Your task to perform on an android device: Clear the shopping cart on newegg. Add "logitech g pro" to the cart on newegg, then select checkout. Image 0: 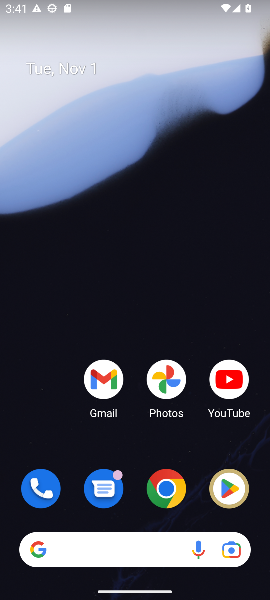
Step 0: drag from (140, 363) to (146, 29)
Your task to perform on an android device: Clear the shopping cart on newegg. Add "logitech g pro" to the cart on newegg, then select checkout. Image 1: 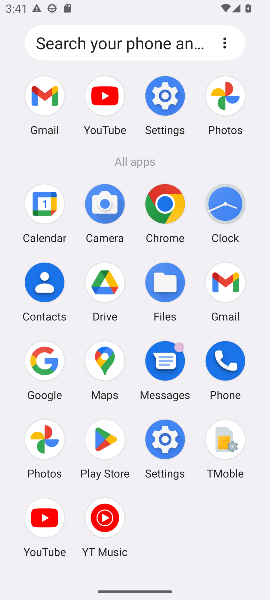
Step 1: click (164, 201)
Your task to perform on an android device: Clear the shopping cart on newegg. Add "logitech g pro" to the cart on newegg, then select checkout. Image 2: 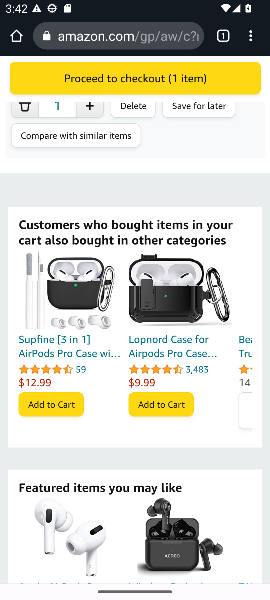
Step 2: click (84, 30)
Your task to perform on an android device: Clear the shopping cart on newegg. Add "logitech g pro" to the cart on newegg, then select checkout. Image 3: 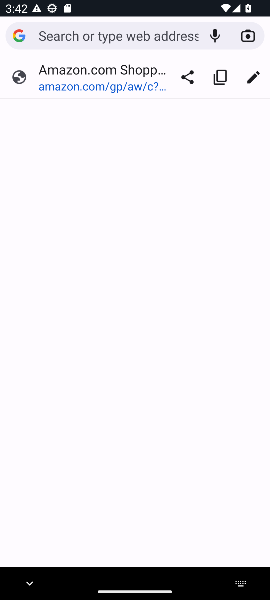
Step 3: type "newegg"
Your task to perform on an android device: Clear the shopping cart on newegg. Add "logitech g pro" to the cart on newegg, then select checkout. Image 4: 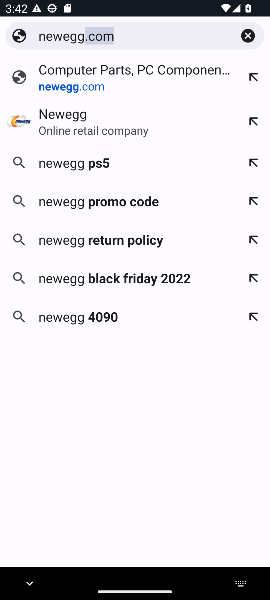
Step 4: click (66, 94)
Your task to perform on an android device: Clear the shopping cart on newegg. Add "logitech g pro" to the cart on newegg, then select checkout. Image 5: 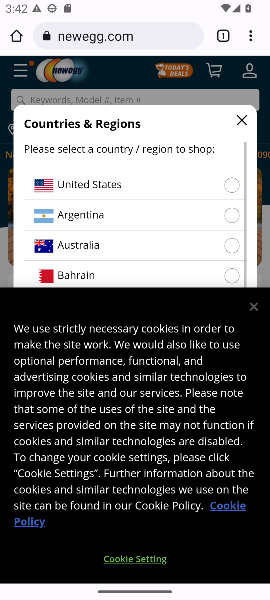
Step 5: click (255, 312)
Your task to perform on an android device: Clear the shopping cart on newegg. Add "logitech g pro" to the cart on newegg, then select checkout. Image 6: 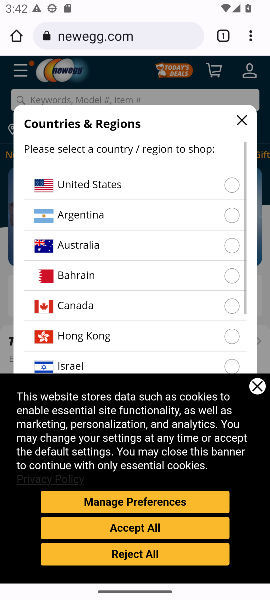
Step 6: click (257, 382)
Your task to perform on an android device: Clear the shopping cart on newegg. Add "logitech g pro" to the cart on newegg, then select checkout. Image 7: 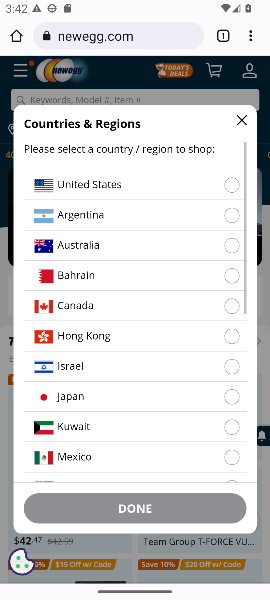
Step 7: click (231, 186)
Your task to perform on an android device: Clear the shopping cart on newegg. Add "logitech g pro" to the cart on newegg, then select checkout. Image 8: 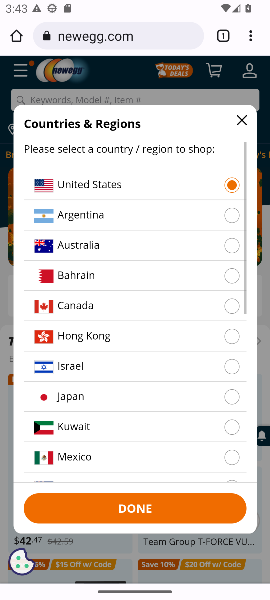
Step 8: click (135, 513)
Your task to perform on an android device: Clear the shopping cart on newegg. Add "logitech g pro" to the cart on newegg, then select checkout. Image 9: 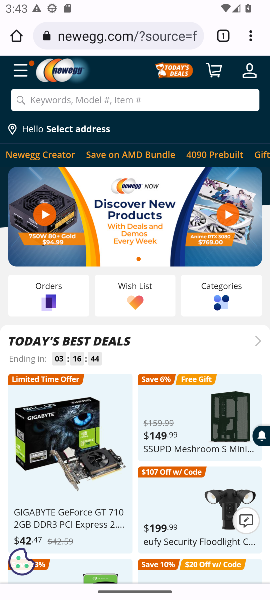
Step 9: click (56, 94)
Your task to perform on an android device: Clear the shopping cart on newegg. Add "logitech g pro" to the cart on newegg, then select checkout. Image 10: 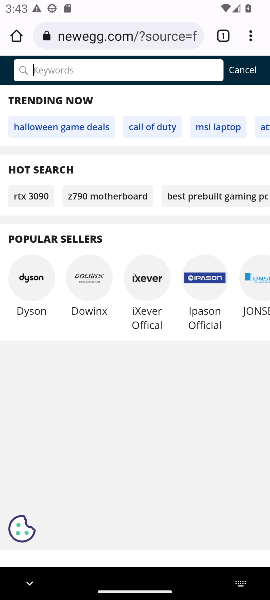
Step 10: type "logitech g pro"
Your task to perform on an android device: Clear the shopping cart on newegg. Add "logitech g pro" to the cart on newegg, then select checkout. Image 11: 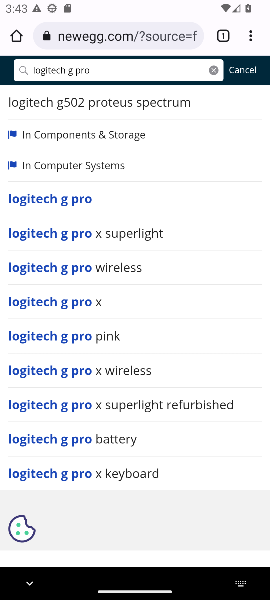
Step 11: click (20, 200)
Your task to perform on an android device: Clear the shopping cart on newegg. Add "logitech g pro" to the cart on newegg, then select checkout. Image 12: 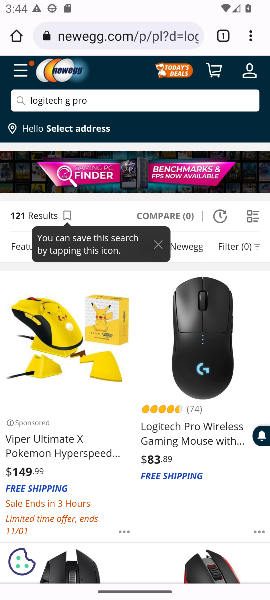
Step 12: click (203, 357)
Your task to perform on an android device: Clear the shopping cart on newegg. Add "logitech g pro" to the cart on newegg, then select checkout. Image 13: 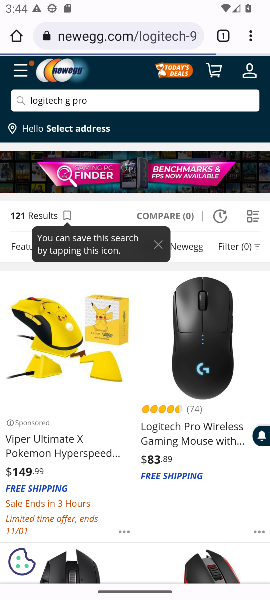
Step 13: click (183, 333)
Your task to perform on an android device: Clear the shopping cart on newegg. Add "logitech g pro" to the cart on newegg, then select checkout. Image 14: 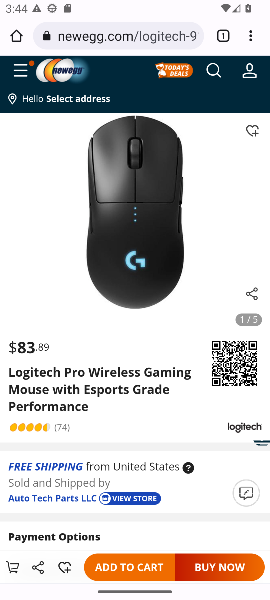
Step 14: drag from (194, 534) to (130, 125)
Your task to perform on an android device: Clear the shopping cart on newegg. Add "logitech g pro" to the cart on newegg, then select checkout. Image 15: 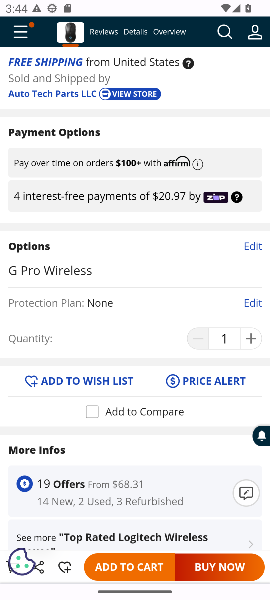
Step 15: drag from (135, 461) to (144, 38)
Your task to perform on an android device: Clear the shopping cart on newegg. Add "logitech g pro" to the cart on newegg, then select checkout. Image 16: 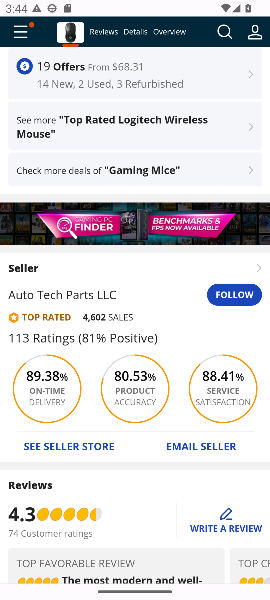
Step 16: click (126, 566)
Your task to perform on an android device: Clear the shopping cart on newegg. Add "logitech g pro" to the cart on newegg, then select checkout. Image 17: 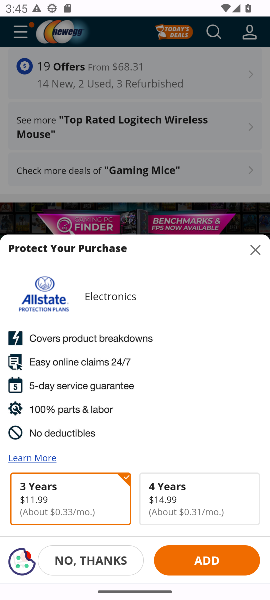
Step 17: click (260, 247)
Your task to perform on an android device: Clear the shopping cart on newegg. Add "logitech g pro" to the cart on newegg, then select checkout. Image 18: 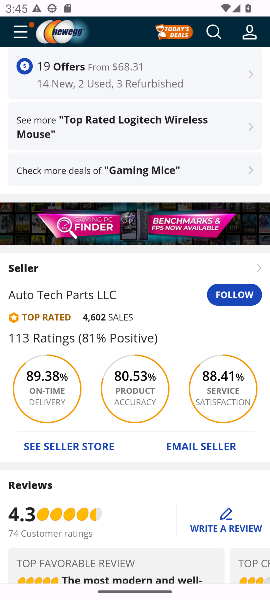
Step 18: drag from (118, 392) to (129, 520)
Your task to perform on an android device: Clear the shopping cart on newegg. Add "logitech g pro" to the cart on newegg, then select checkout. Image 19: 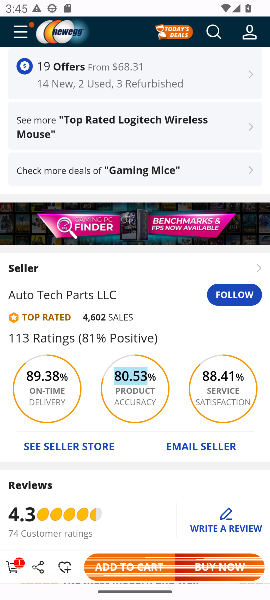
Step 19: drag from (149, 94) to (174, 394)
Your task to perform on an android device: Clear the shopping cart on newegg. Add "logitech g pro" to the cart on newegg, then select checkout. Image 20: 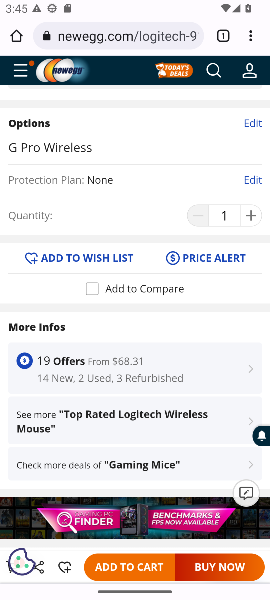
Step 20: click (7, 574)
Your task to perform on an android device: Clear the shopping cart on newegg. Add "logitech g pro" to the cart on newegg, then select checkout. Image 21: 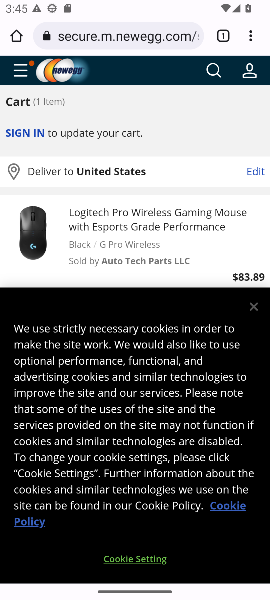
Step 21: click (254, 310)
Your task to perform on an android device: Clear the shopping cart on newegg. Add "logitech g pro" to the cart on newegg, then select checkout. Image 22: 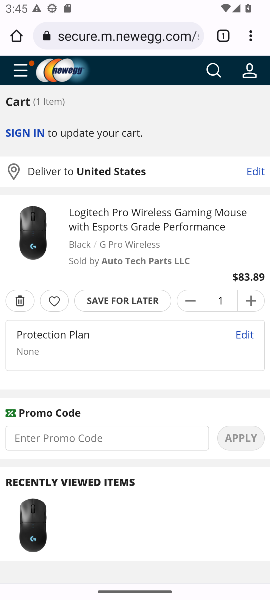
Step 22: drag from (128, 424) to (172, 245)
Your task to perform on an android device: Clear the shopping cart on newegg. Add "logitech g pro" to the cart on newegg, then select checkout. Image 23: 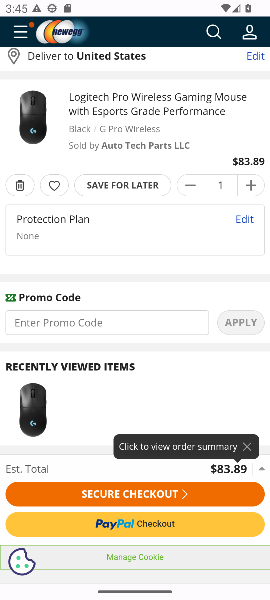
Step 23: click (148, 493)
Your task to perform on an android device: Clear the shopping cart on newegg. Add "logitech g pro" to the cart on newegg, then select checkout. Image 24: 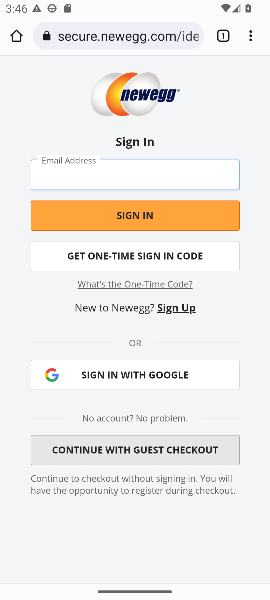
Step 24: task complete